Your task to perform on an android device: Open wifi settings Image 0: 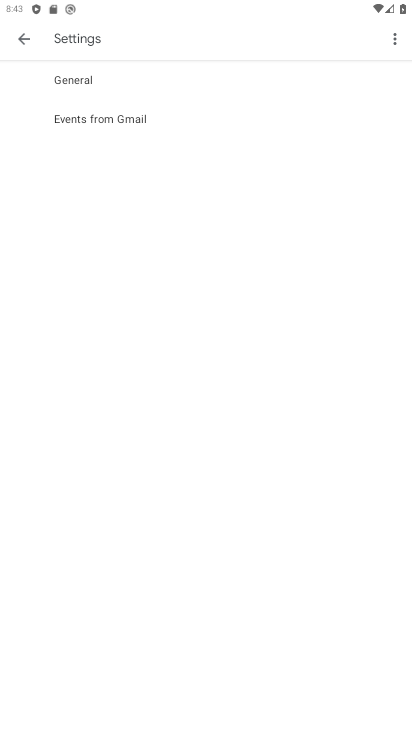
Step 0: click (22, 35)
Your task to perform on an android device: Open wifi settings Image 1: 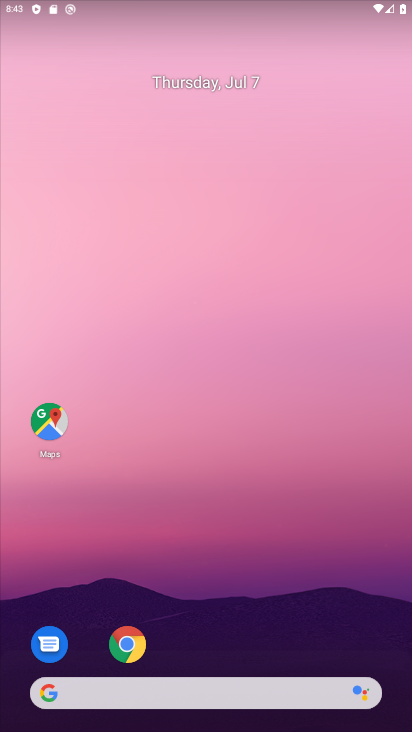
Step 1: drag from (236, 578) to (147, 186)
Your task to perform on an android device: Open wifi settings Image 2: 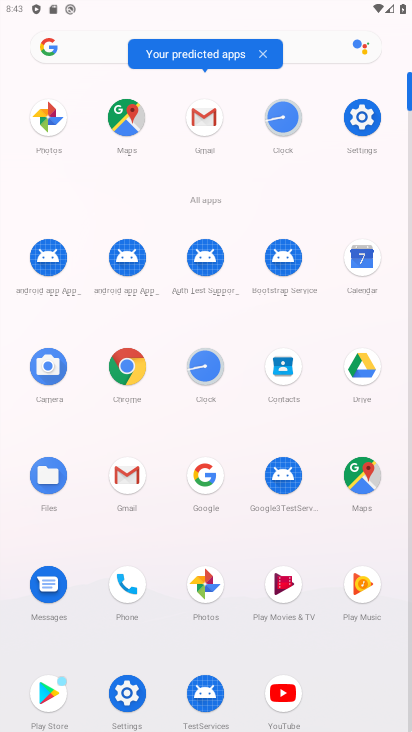
Step 2: click (351, 116)
Your task to perform on an android device: Open wifi settings Image 3: 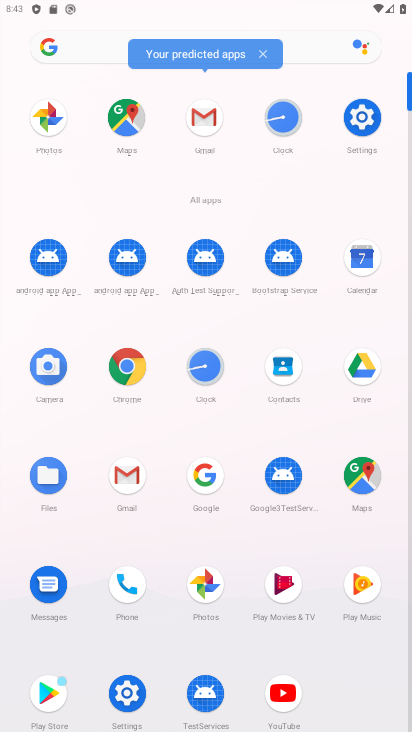
Step 3: click (361, 114)
Your task to perform on an android device: Open wifi settings Image 4: 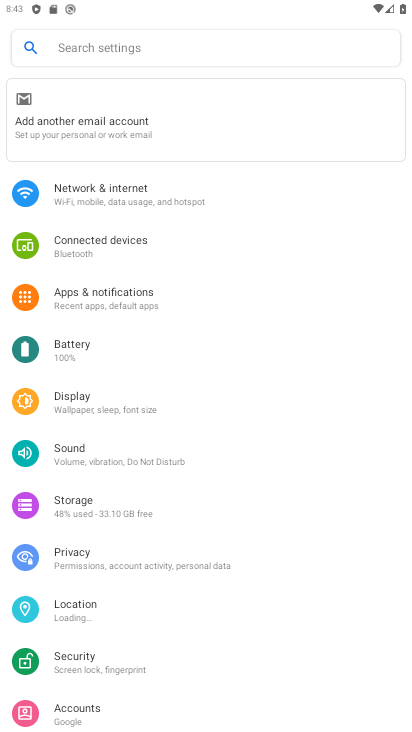
Step 4: click (111, 192)
Your task to perform on an android device: Open wifi settings Image 5: 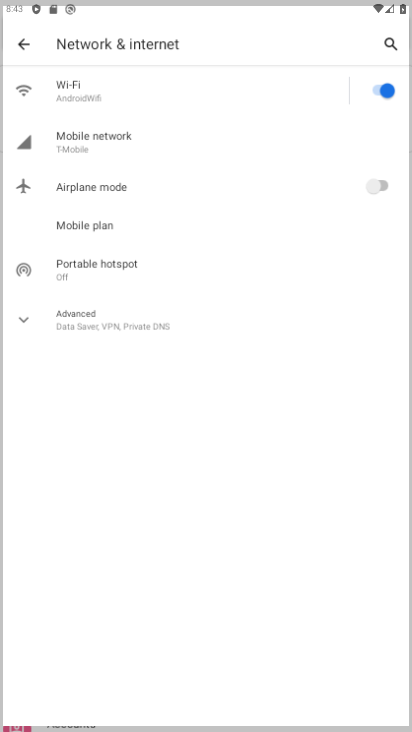
Step 5: click (111, 192)
Your task to perform on an android device: Open wifi settings Image 6: 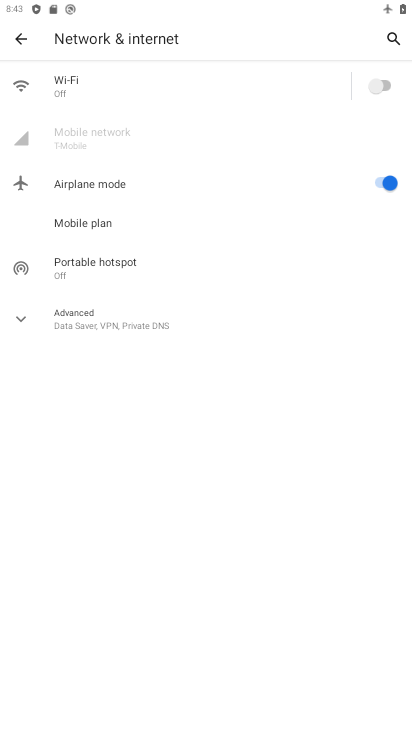
Step 6: click (383, 83)
Your task to perform on an android device: Open wifi settings Image 7: 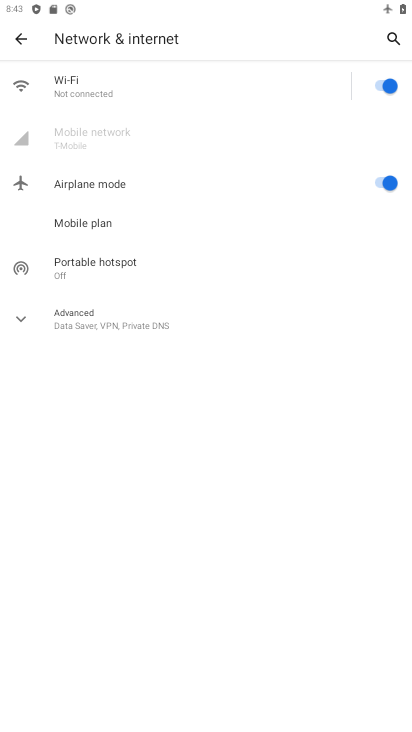
Step 7: task complete